Your task to perform on an android device: Open Google Chrome and open the bookmarks view Image 0: 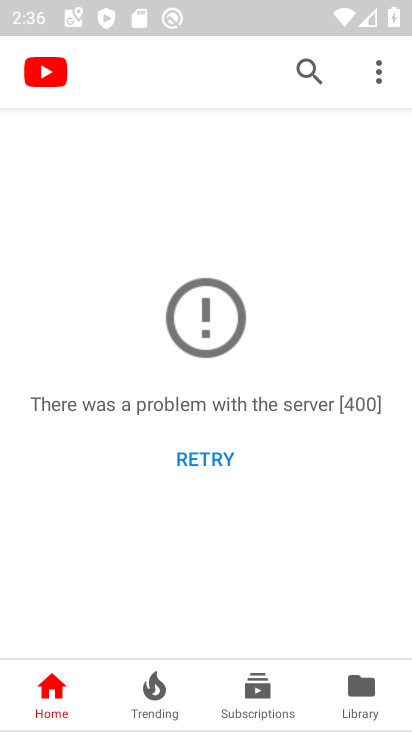
Step 0: press home button
Your task to perform on an android device: Open Google Chrome and open the bookmarks view Image 1: 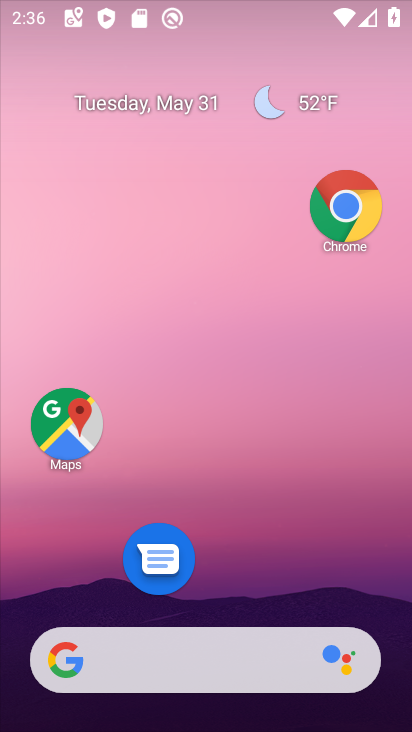
Step 1: drag from (297, 394) to (290, 119)
Your task to perform on an android device: Open Google Chrome and open the bookmarks view Image 2: 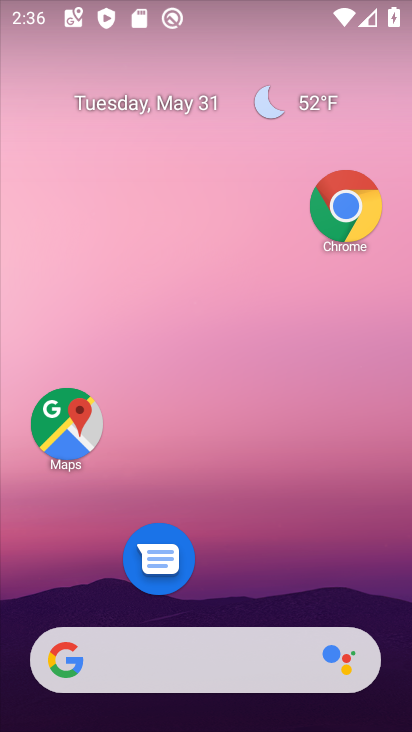
Step 2: drag from (241, 537) to (217, 82)
Your task to perform on an android device: Open Google Chrome and open the bookmarks view Image 3: 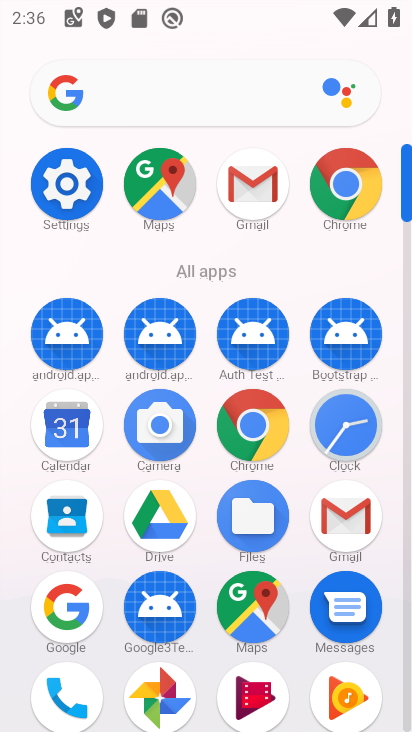
Step 3: click (275, 444)
Your task to perform on an android device: Open Google Chrome and open the bookmarks view Image 4: 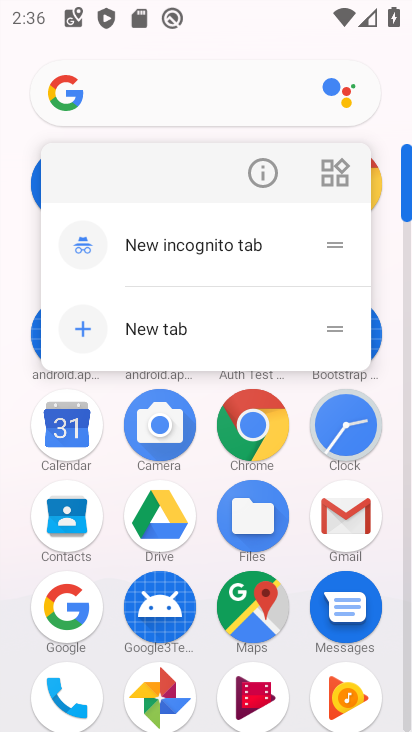
Step 4: click (258, 442)
Your task to perform on an android device: Open Google Chrome and open the bookmarks view Image 5: 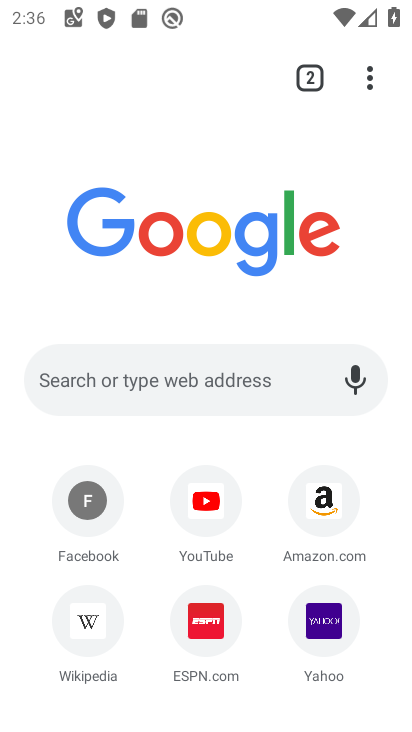
Step 5: click (367, 76)
Your task to perform on an android device: Open Google Chrome and open the bookmarks view Image 6: 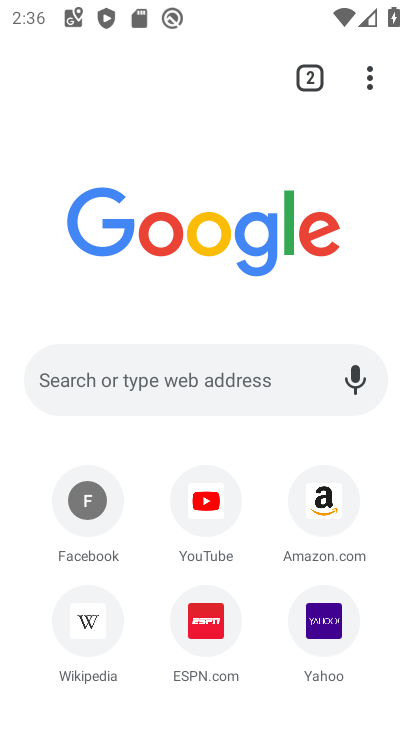
Step 6: click (376, 85)
Your task to perform on an android device: Open Google Chrome and open the bookmarks view Image 7: 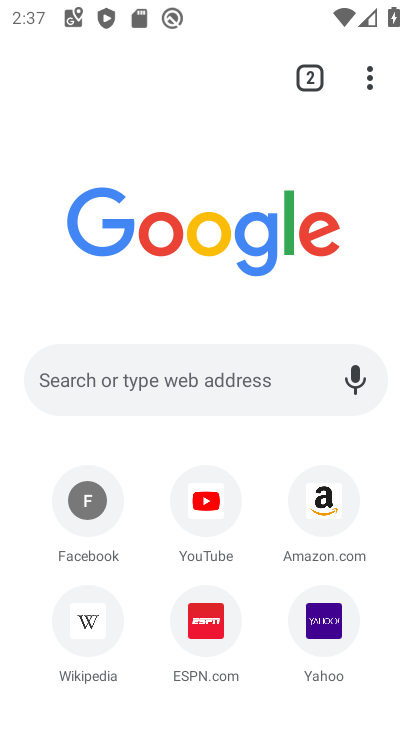
Step 7: click (364, 84)
Your task to perform on an android device: Open Google Chrome and open the bookmarks view Image 8: 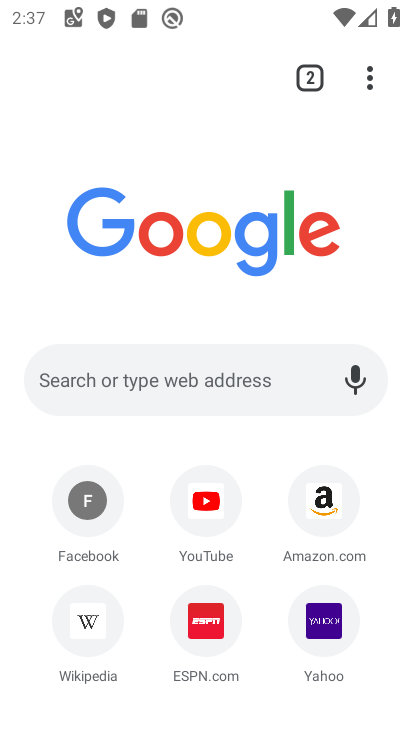
Step 8: click (374, 81)
Your task to perform on an android device: Open Google Chrome and open the bookmarks view Image 9: 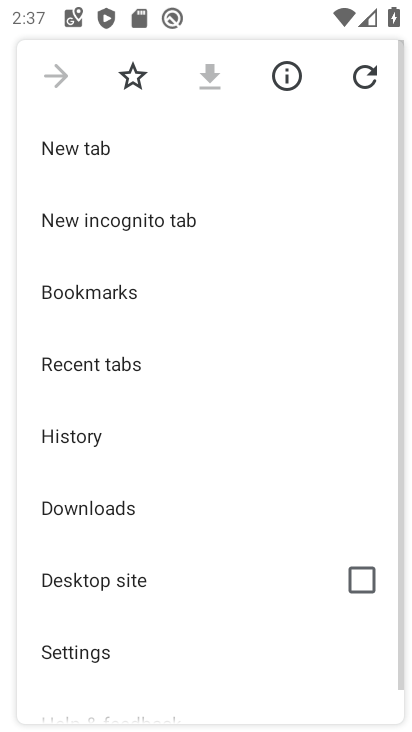
Step 9: click (146, 299)
Your task to perform on an android device: Open Google Chrome and open the bookmarks view Image 10: 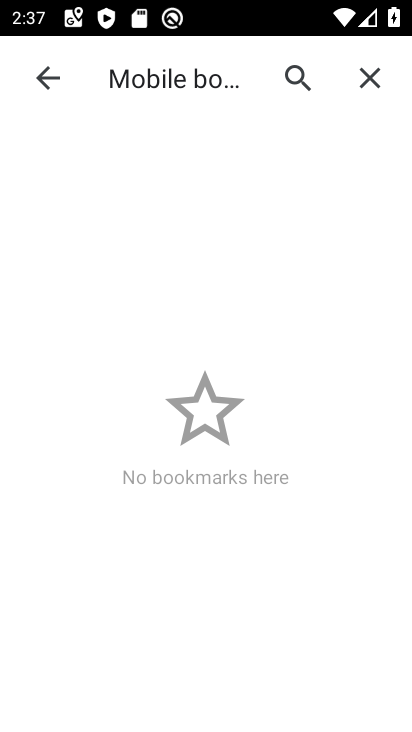
Step 10: task complete